Your task to perform on an android device: Open calendar and show me the third week of next month Image 0: 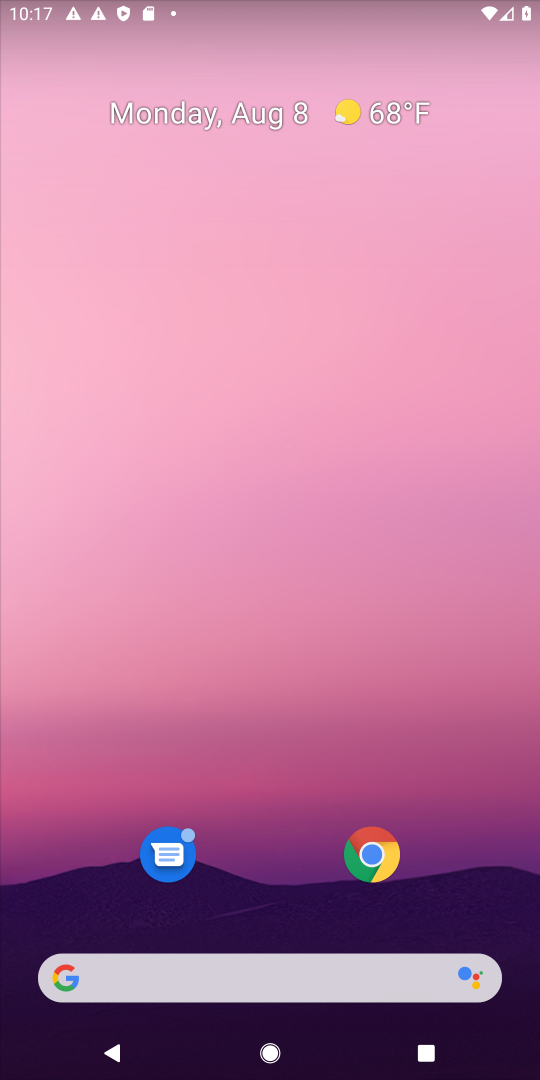
Step 0: drag from (211, 771) to (210, 187)
Your task to perform on an android device: Open calendar and show me the third week of next month Image 1: 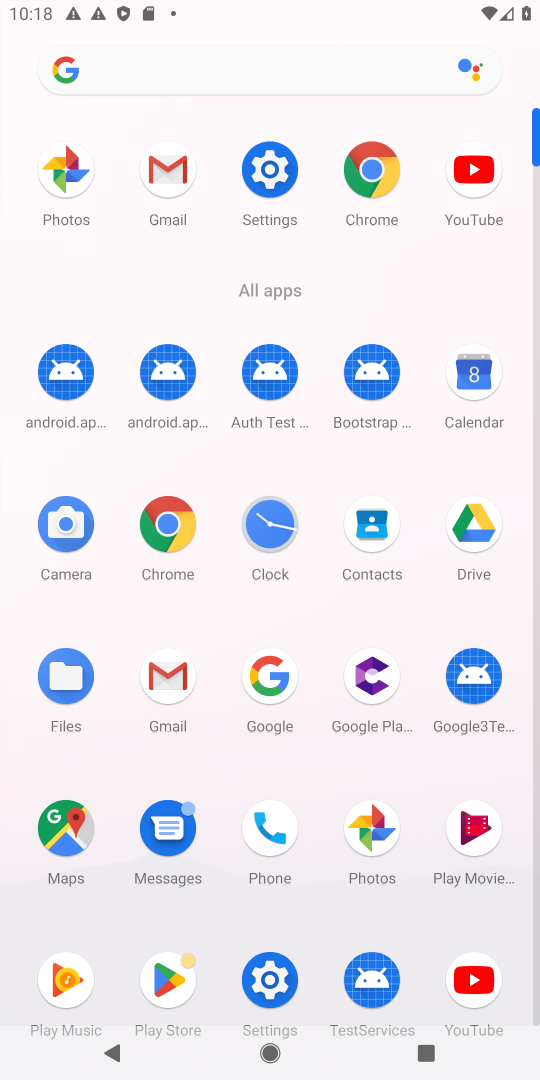
Step 1: click (474, 387)
Your task to perform on an android device: Open calendar and show me the third week of next month Image 2: 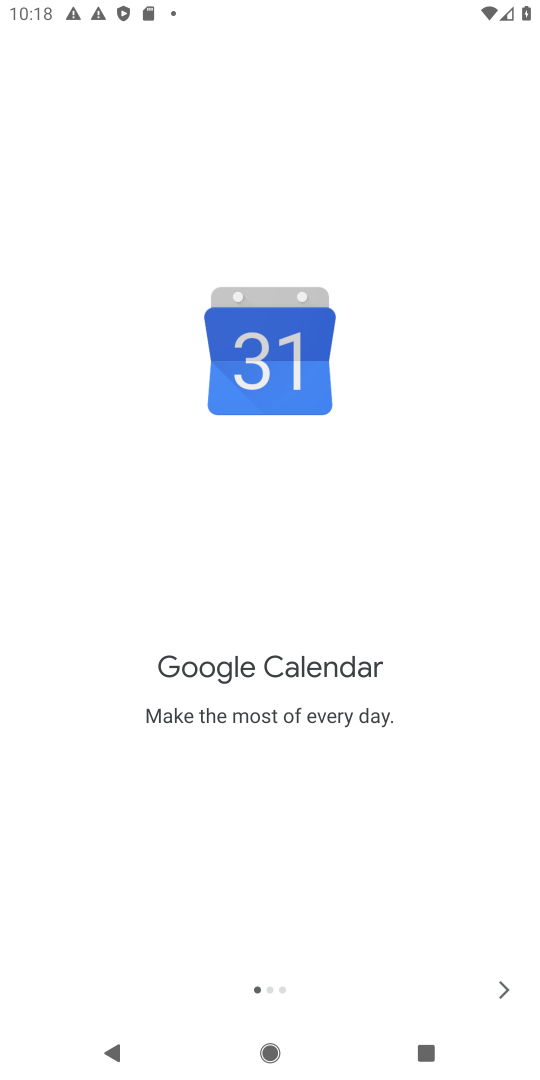
Step 2: click (509, 997)
Your task to perform on an android device: Open calendar and show me the third week of next month Image 3: 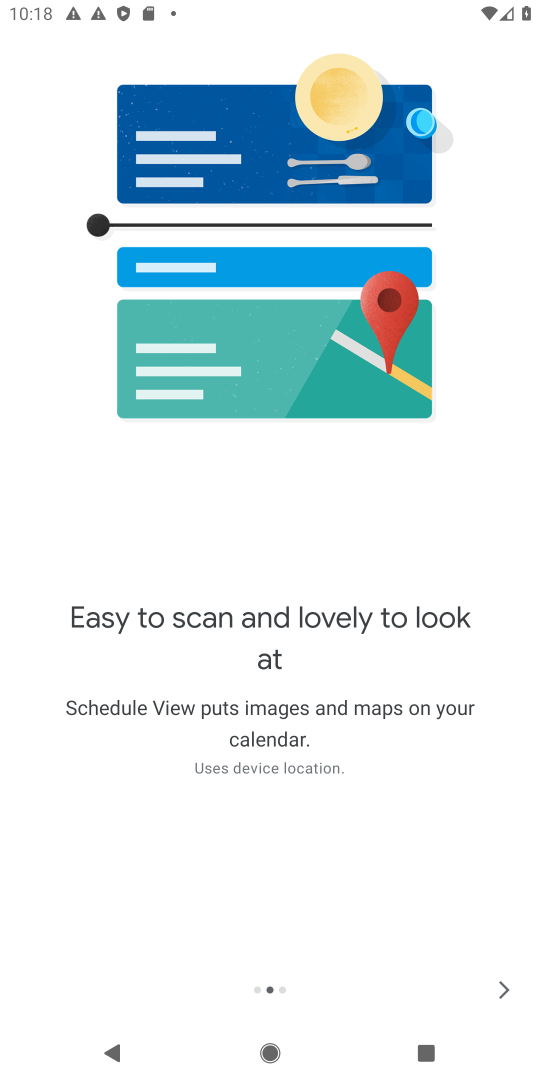
Step 3: click (509, 997)
Your task to perform on an android device: Open calendar and show me the third week of next month Image 4: 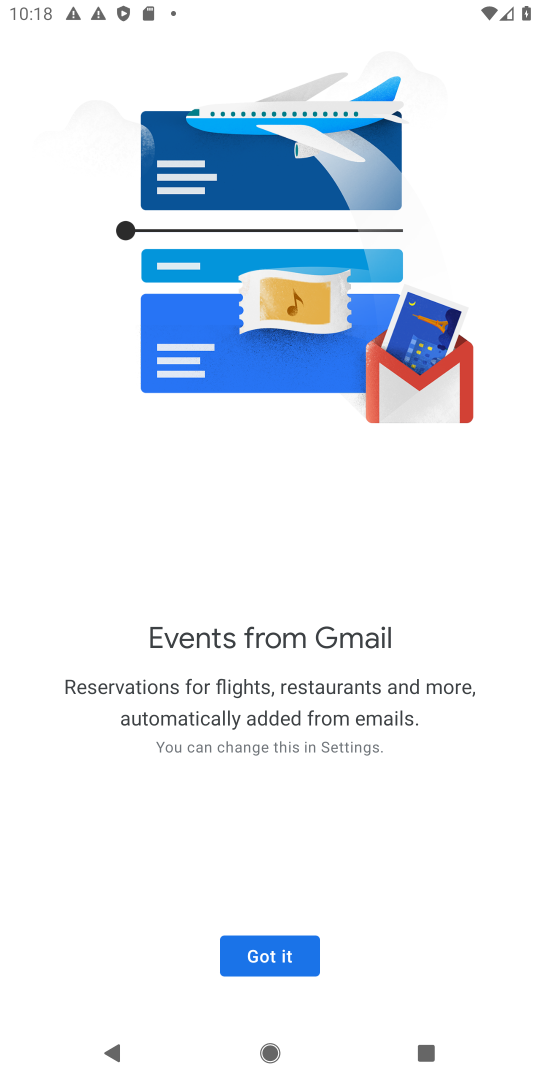
Step 4: click (509, 997)
Your task to perform on an android device: Open calendar and show me the third week of next month Image 5: 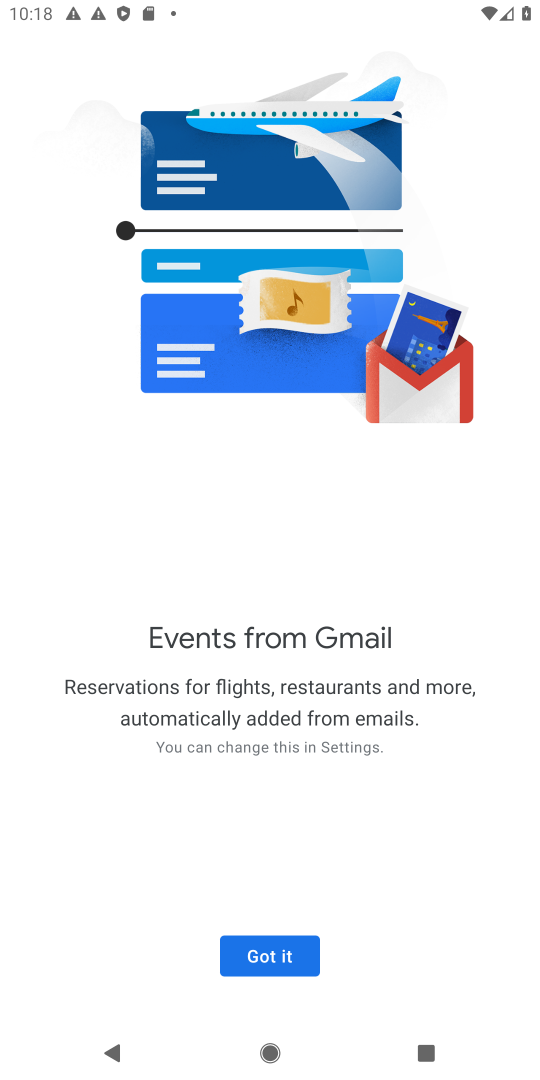
Step 5: click (218, 939)
Your task to perform on an android device: Open calendar and show me the third week of next month Image 6: 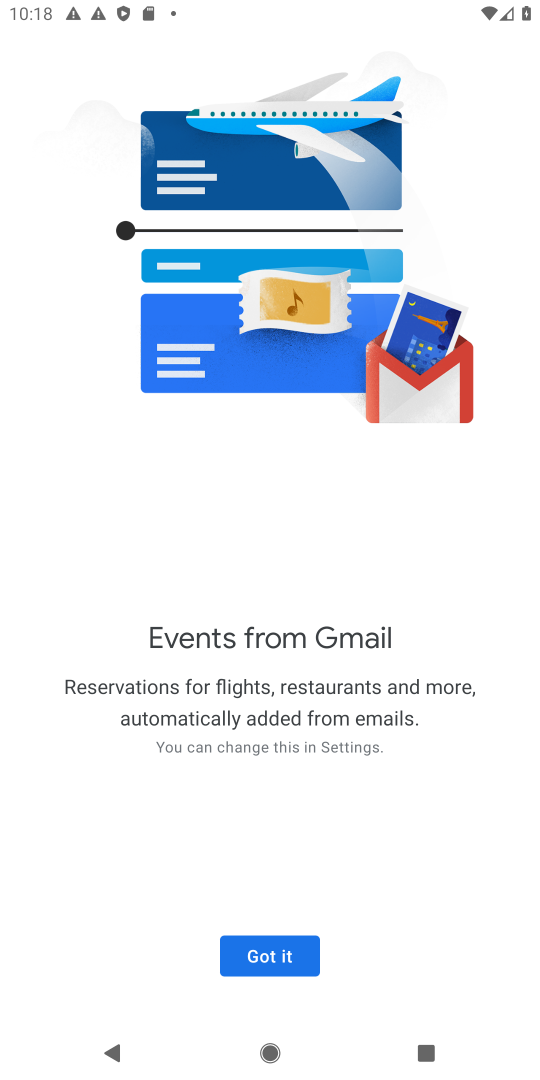
Step 6: click (272, 953)
Your task to perform on an android device: Open calendar and show me the third week of next month Image 7: 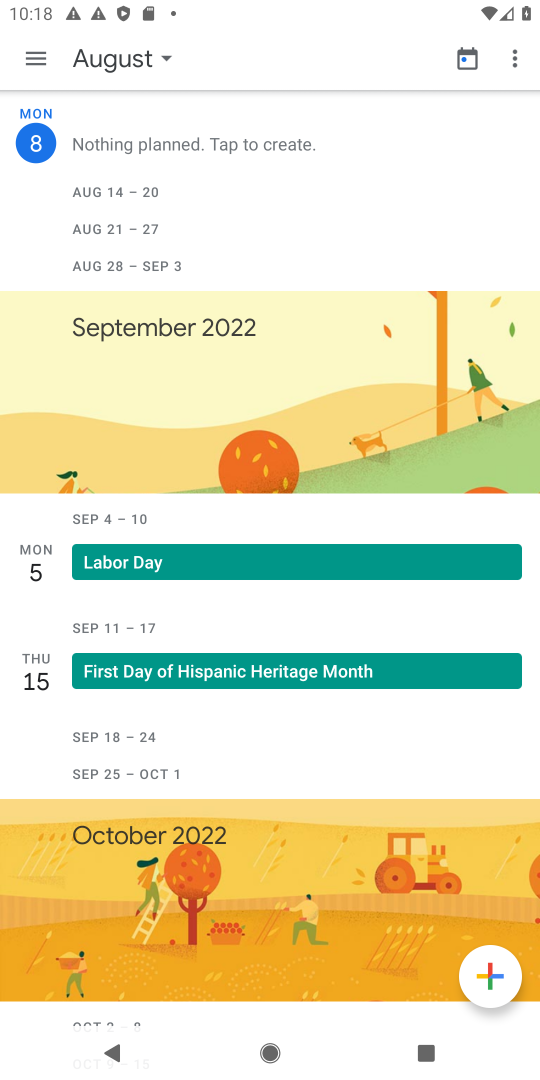
Step 7: task complete